Your task to perform on an android device: Toggle the flashlight Image 0: 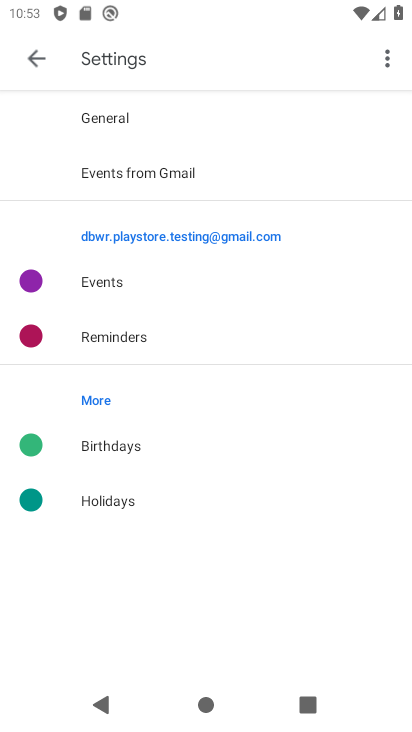
Step 0: press home button
Your task to perform on an android device: Toggle the flashlight Image 1: 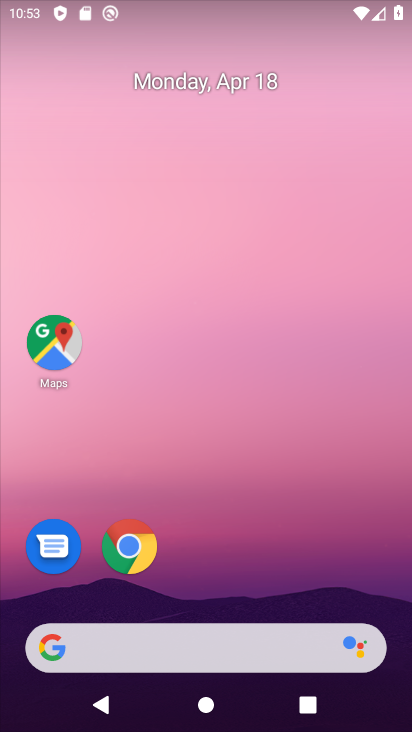
Step 1: drag from (230, 5) to (242, 415)
Your task to perform on an android device: Toggle the flashlight Image 2: 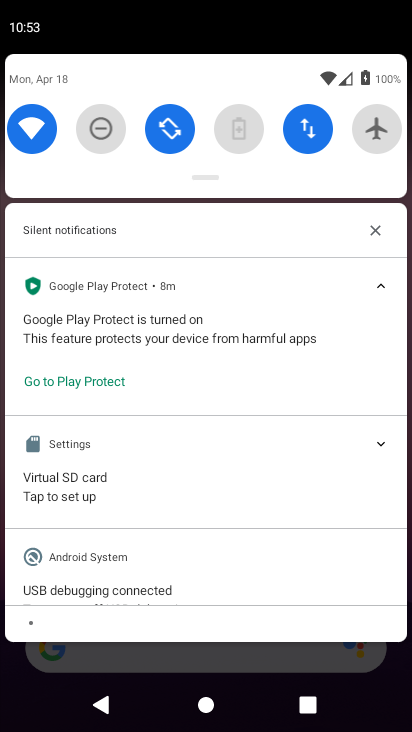
Step 2: drag from (203, 99) to (212, 379)
Your task to perform on an android device: Toggle the flashlight Image 3: 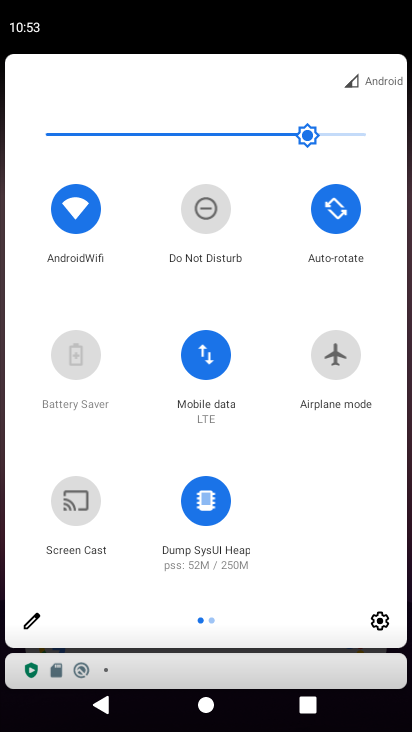
Step 3: click (31, 623)
Your task to perform on an android device: Toggle the flashlight Image 4: 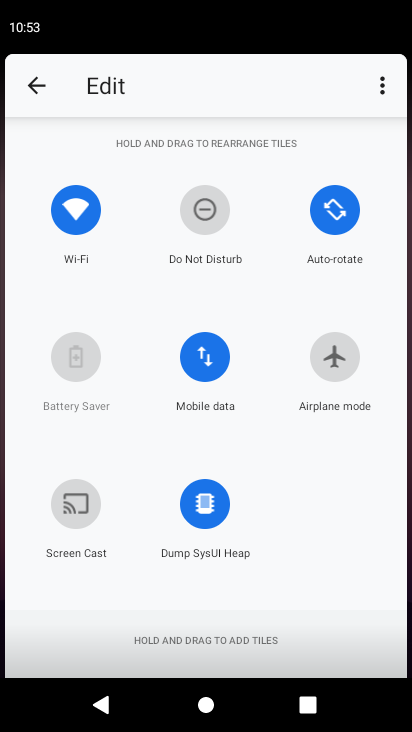
Step 4: task complete